Your task to perform on an android device: change alarm snooze length Image 0: 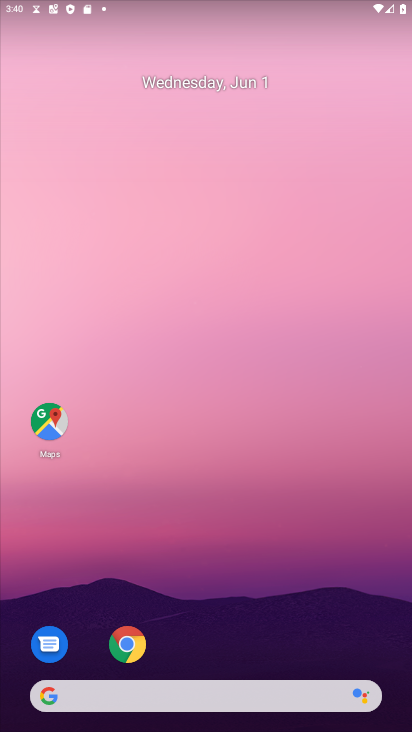
Step 0: drag from (318, 639) to (278, 146)
Your task to perform on an android device: change alarm snooze length Image 1: 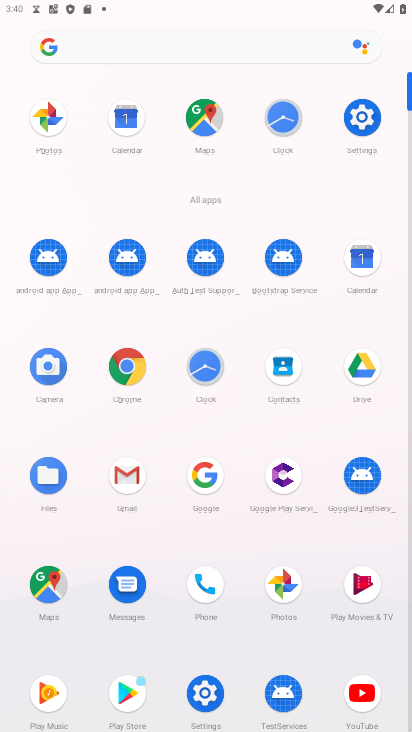
Step 1: click (289, 118)
Your task to perform on an android device: change alarm snooze length Image 2: 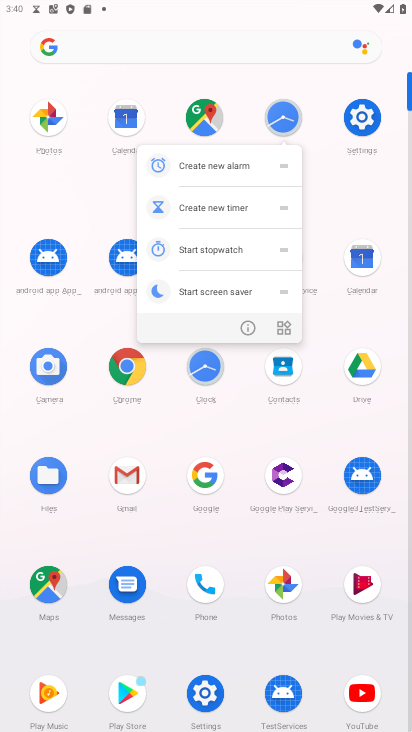
Step 2: click (289, 120)
Your task to perform on an android device: change alarm snooze length Image 3: 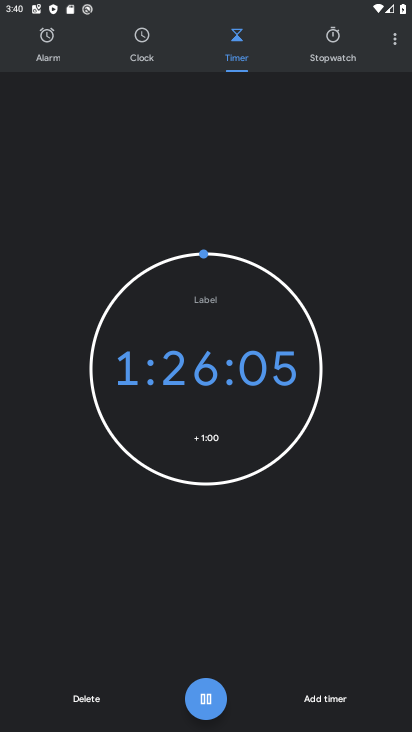
Step 3: click (394, 34)
Your task to perform on an android device: change alarm snooze length Image 4: 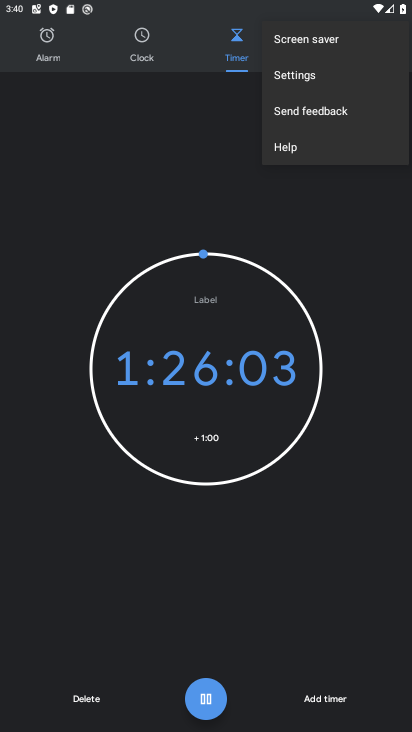
Step 4: click (281, 83)
Your task to perform on an android device: change alarm snooze length Image 5: 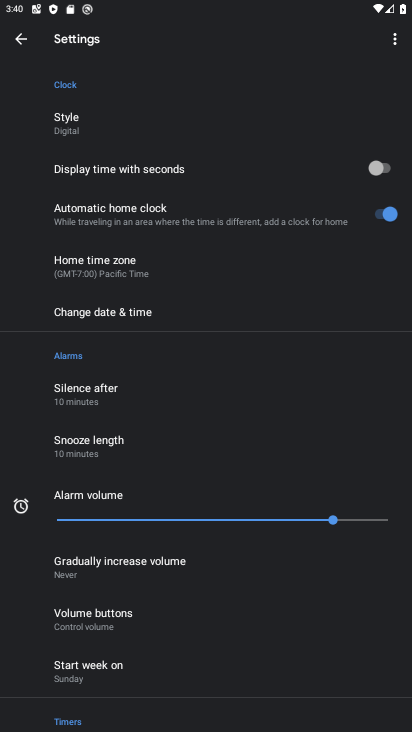
Step 5: click (92, 443)
Your task to perform on an android device: change alarm snooze length Image 6: 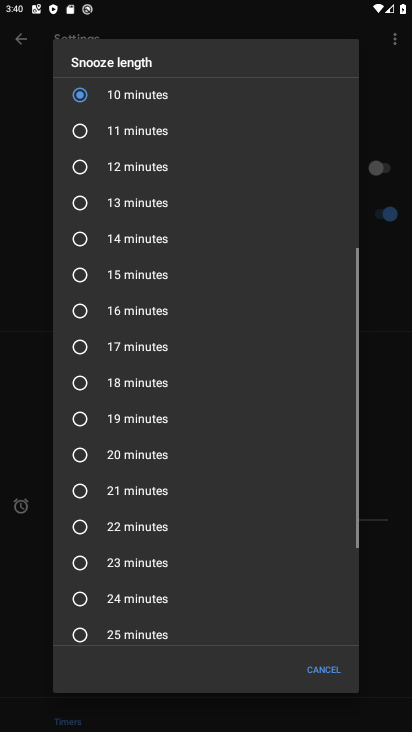
Step 6: click (90, 457)
Your task to perform on an android device: change alarm snooze length Image 7: 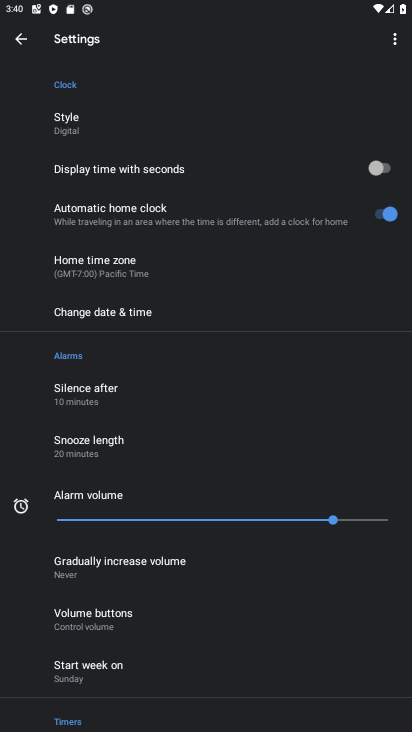
Step 7: task complete